Your task to perform on an android device: Go to settings Image 0: 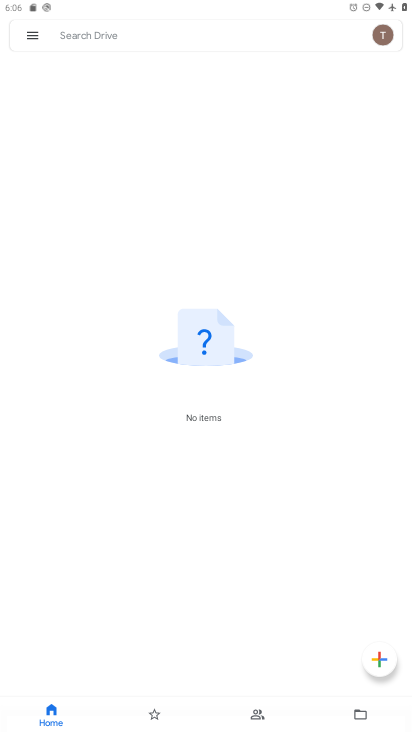
Step 0: press home button
Your task to perform on an android device: Go to settings Image 1: 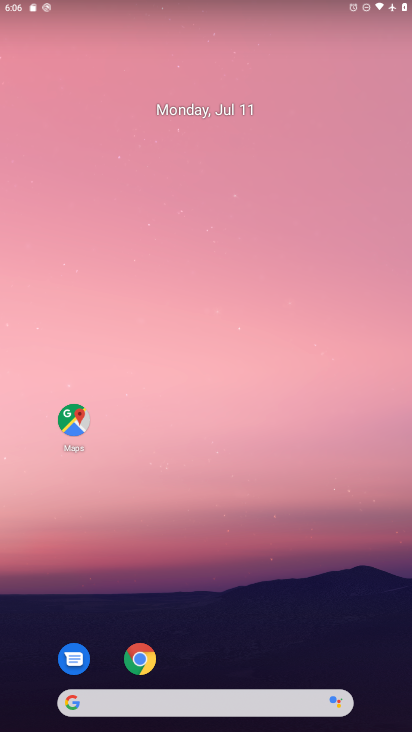
Step 1: drag from (381, 657) to (313, 48)
Your task to perform on an android device: Go to settings Image 2: 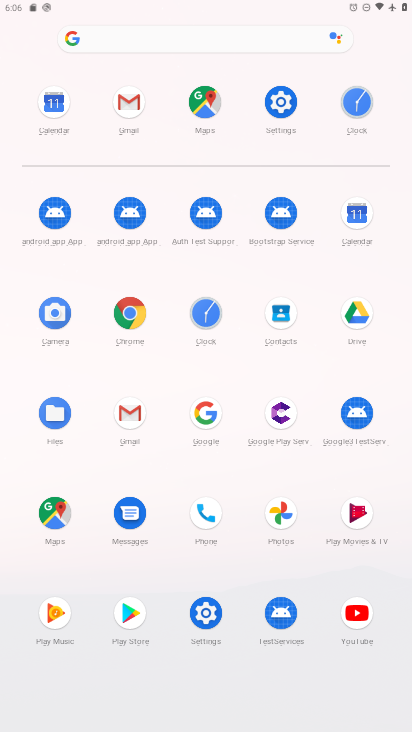
Step 2: click (204, 615)
Your task to perform on an android device: Go to settings Image 3: 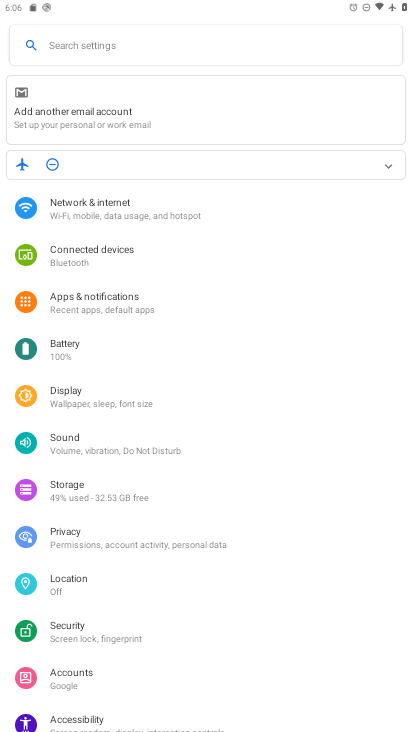
Step 3: task complete